Your task to perform on an android device: Open eBay Image 0: 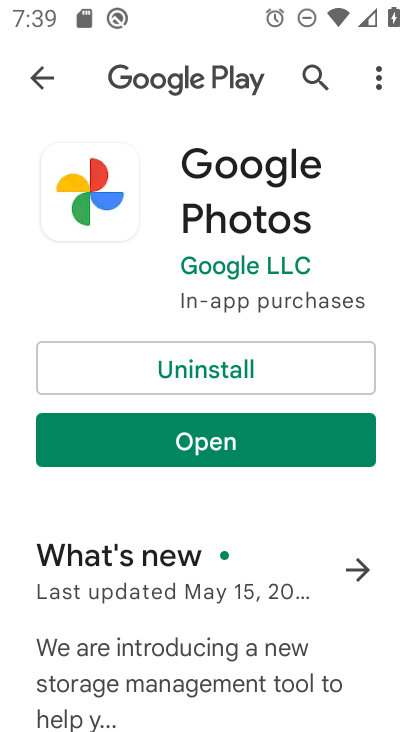
Step 0: press home button
Your task to perform on an android device: Open eBay Image 1: 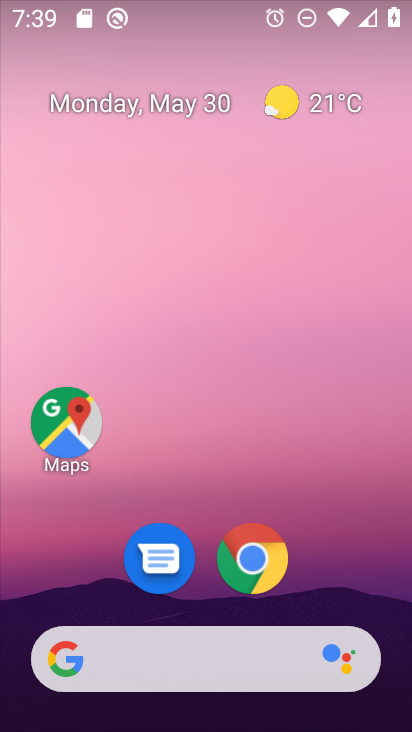
Step 1: click (230, 659)
Your task to perform on an android device: Open eBay Image 2: 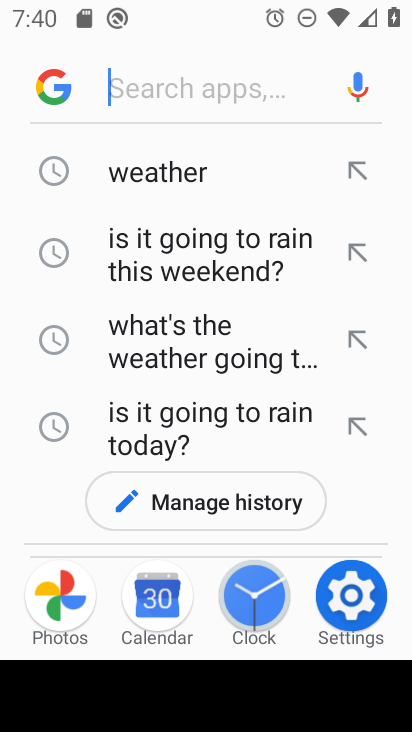
Step 2: type "ebay"
Your task to perform on an android device: Open eBay Image 3: 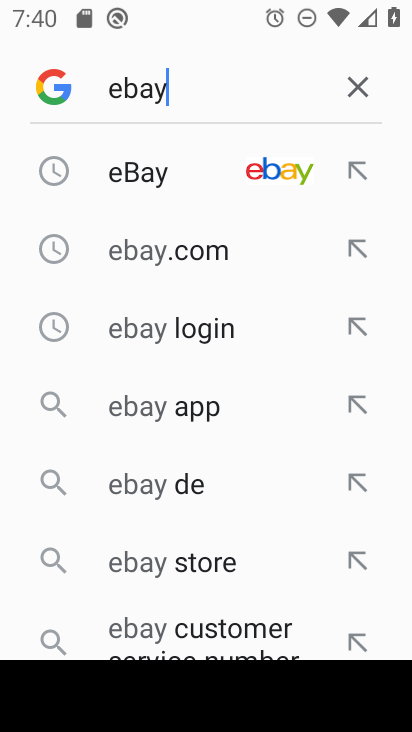
Step 3: click (146, 180)
Your task to perform on an android device: Open eBay Image 4: 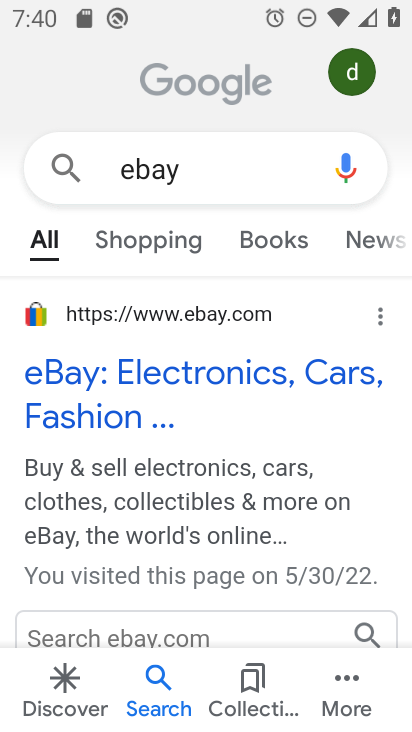
Step 4: task complete